Your task to perform on an android device: Search for Italian restaurants on Maps Image 0: 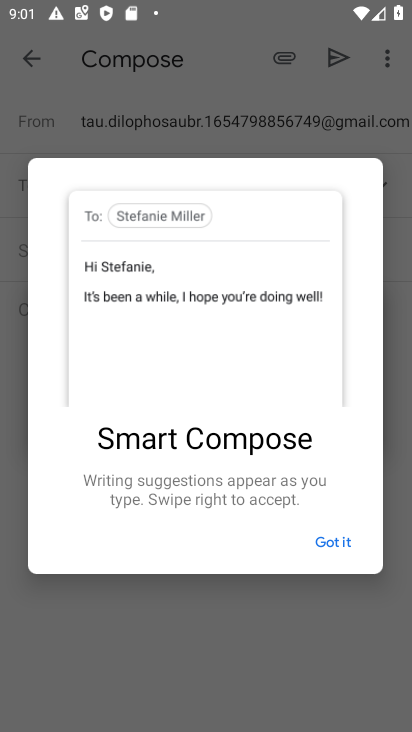
Step 0: press home button
Your task to perform on an android device: Search for Italian restaurants on Maps Image 1: 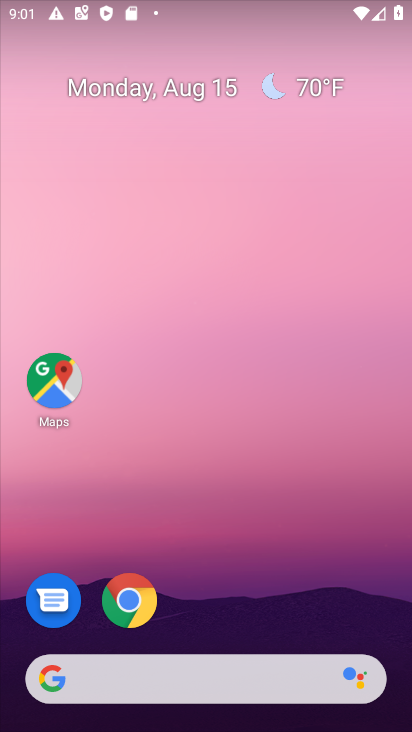
Step 1: click (49, 379)
Your task to perform on an android device: Search for Italian restaurants on Maps Image 2: 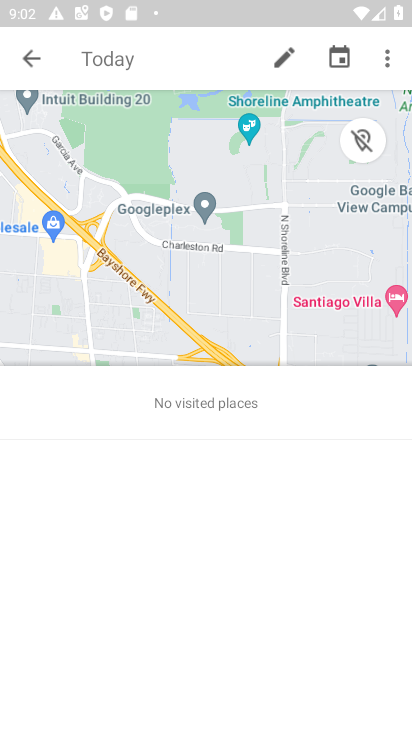
Step 2: click (27, 49)
Your task to perform on an android device: Search for Italian restaurants on Maps Image 3: 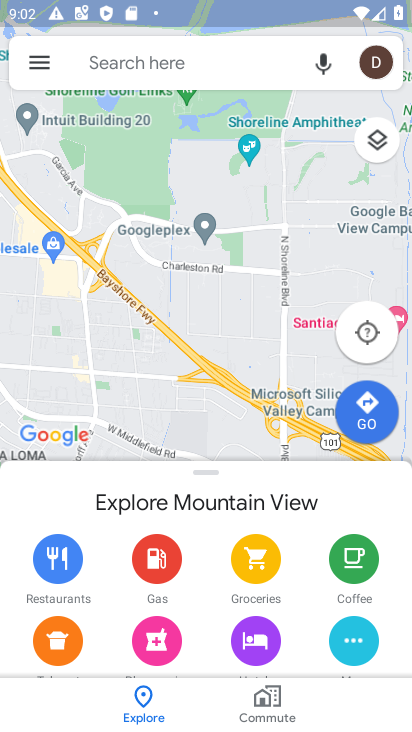
Step 3: click (168, 64)
Your task to perform on an android device: Search for Italian restaurants on Maps Image 4: 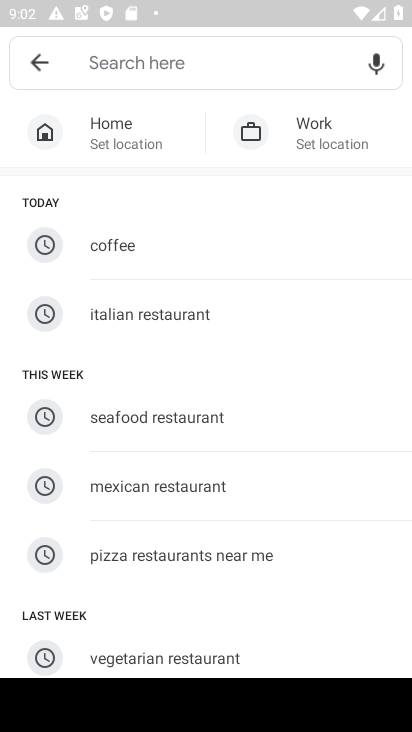
Step 4: type "Italian restaurants"
Your task to perform on an android device: Search for Italian restaurants on Maps Image 5: 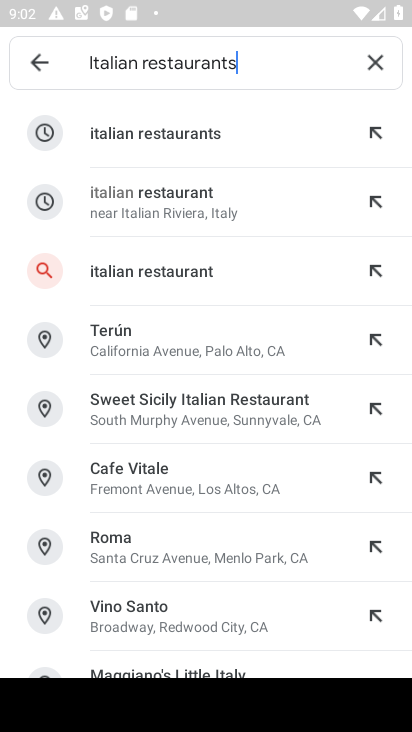
Step 5: click (195, 126)
Your task to perform on an android device: Search for Italian restaurants on Maps Image 6: 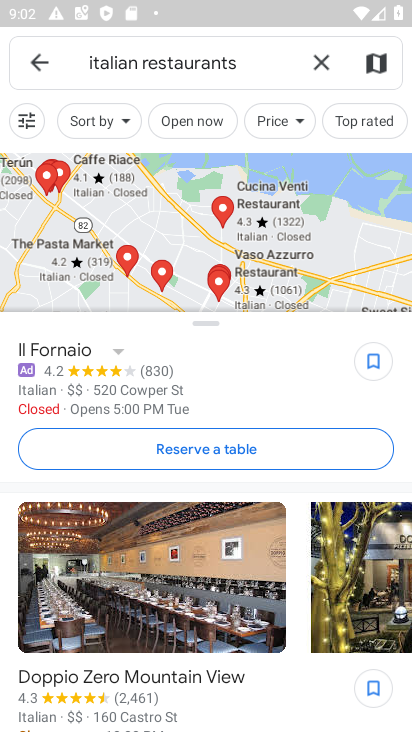
Step 6: task complete